Your task to perform on an android device: Add corsair k70 to the cart on walmart.com Image 0: 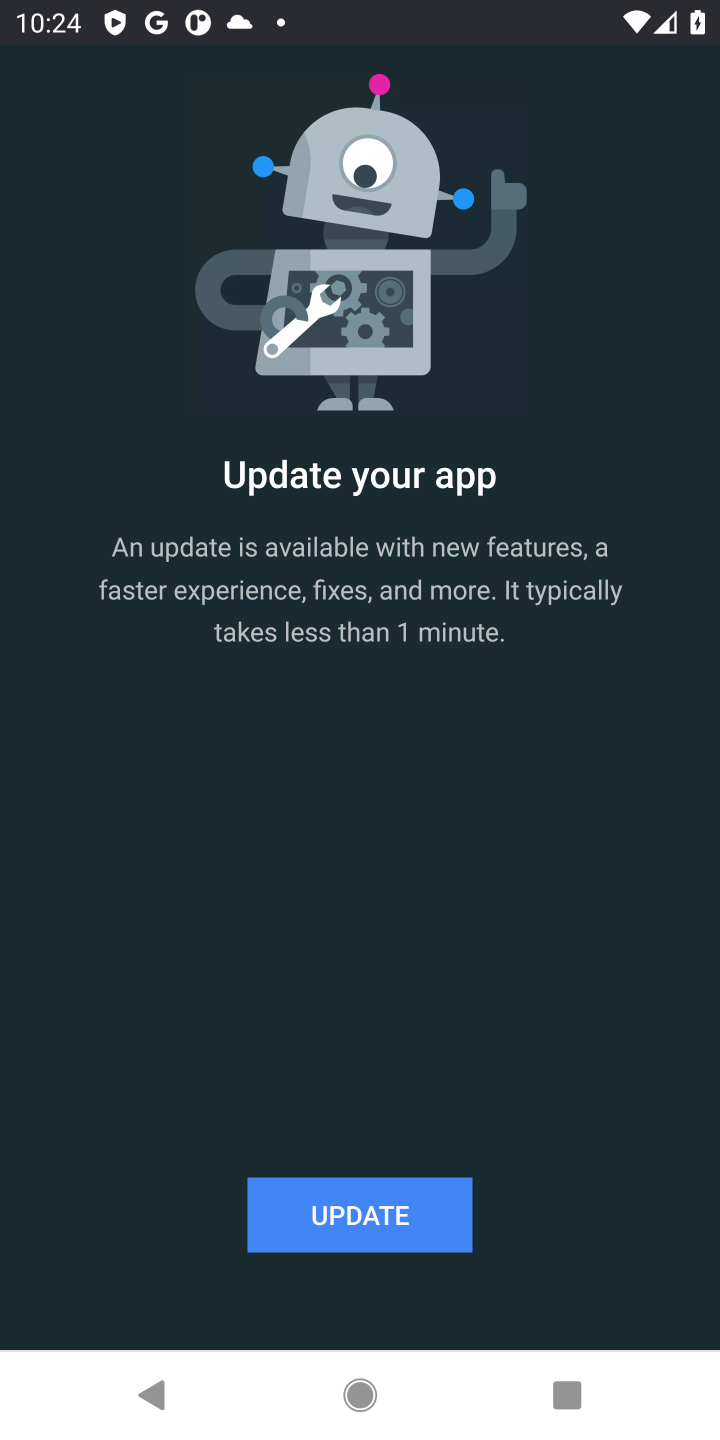
Step 0: press home button
Your task to perform on an android device: Add corsair k70 to the cart on walmart.com Image 1: 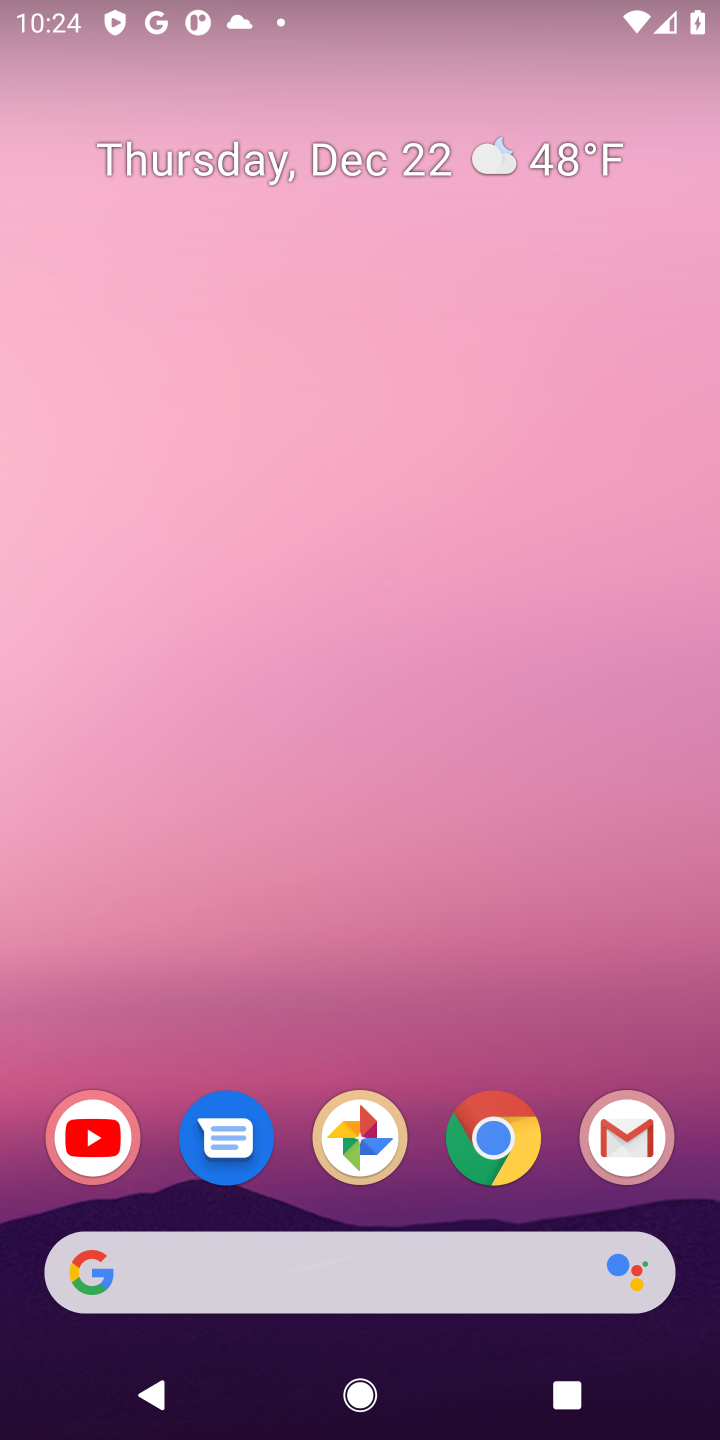
Step 1: click (491, 1128)
Your task to perform on an android device: Add corsair k70 to the cart on walmart.com Image 2: 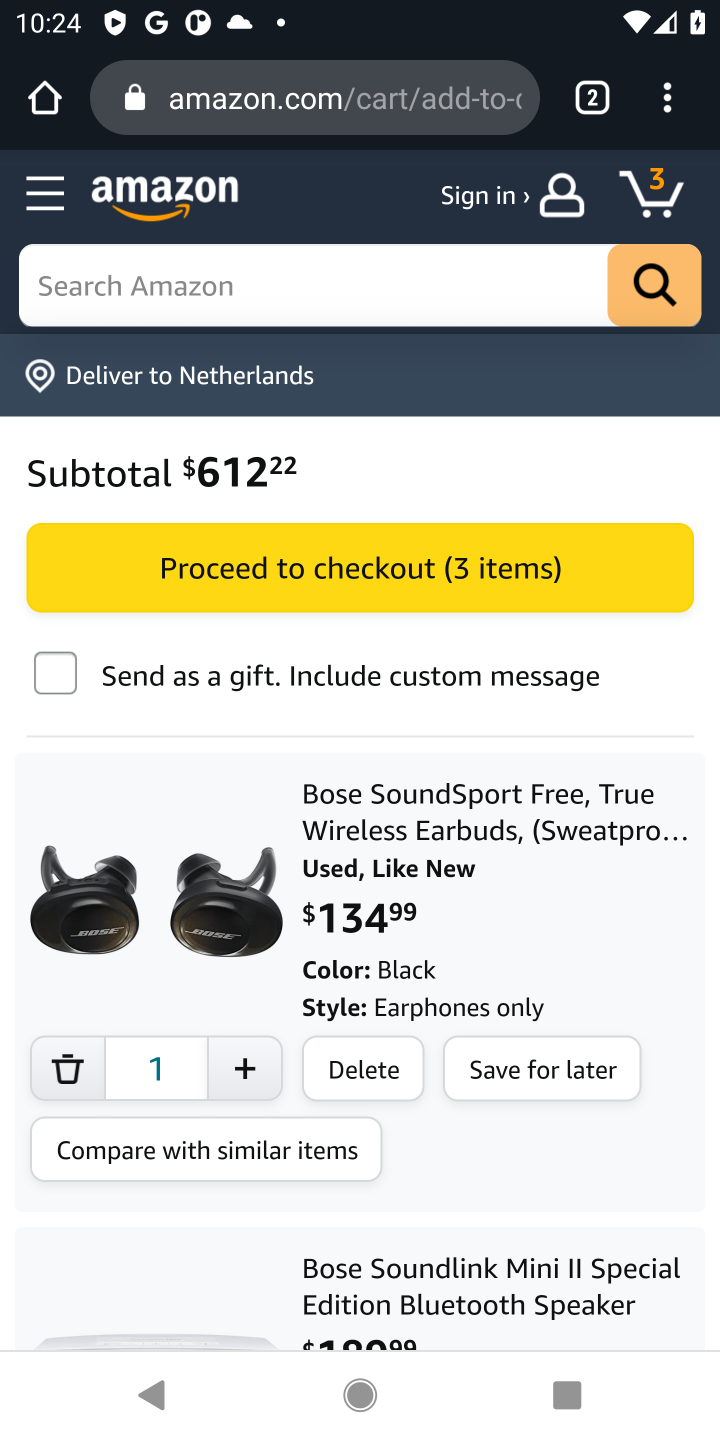
Step 2: click (371, 97)
Your task to perform on an android device: Add corsair k70 to the cart on walmart.com Image 3: 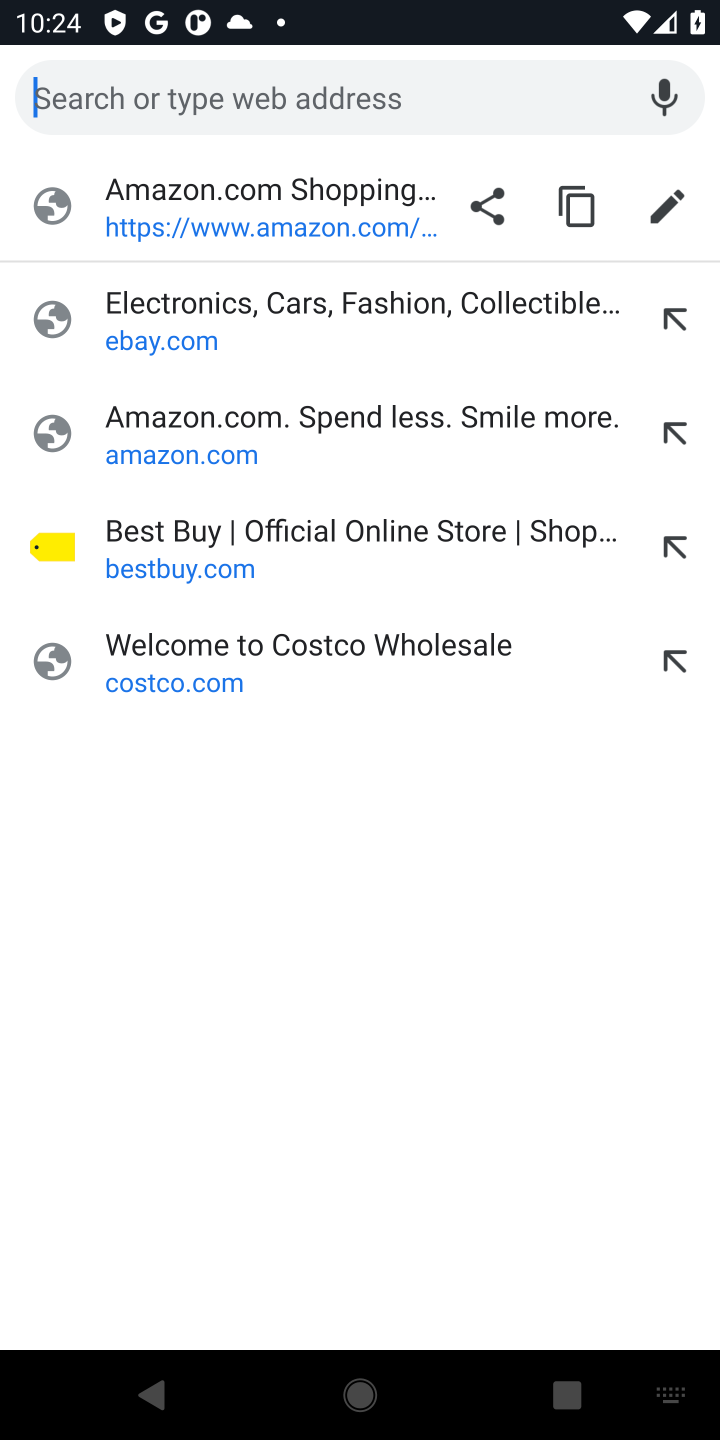
Step 3: type "walmart.com"
Your task to perform on an android device: Add corsair k70 to the cart on walmart.com Image 4: 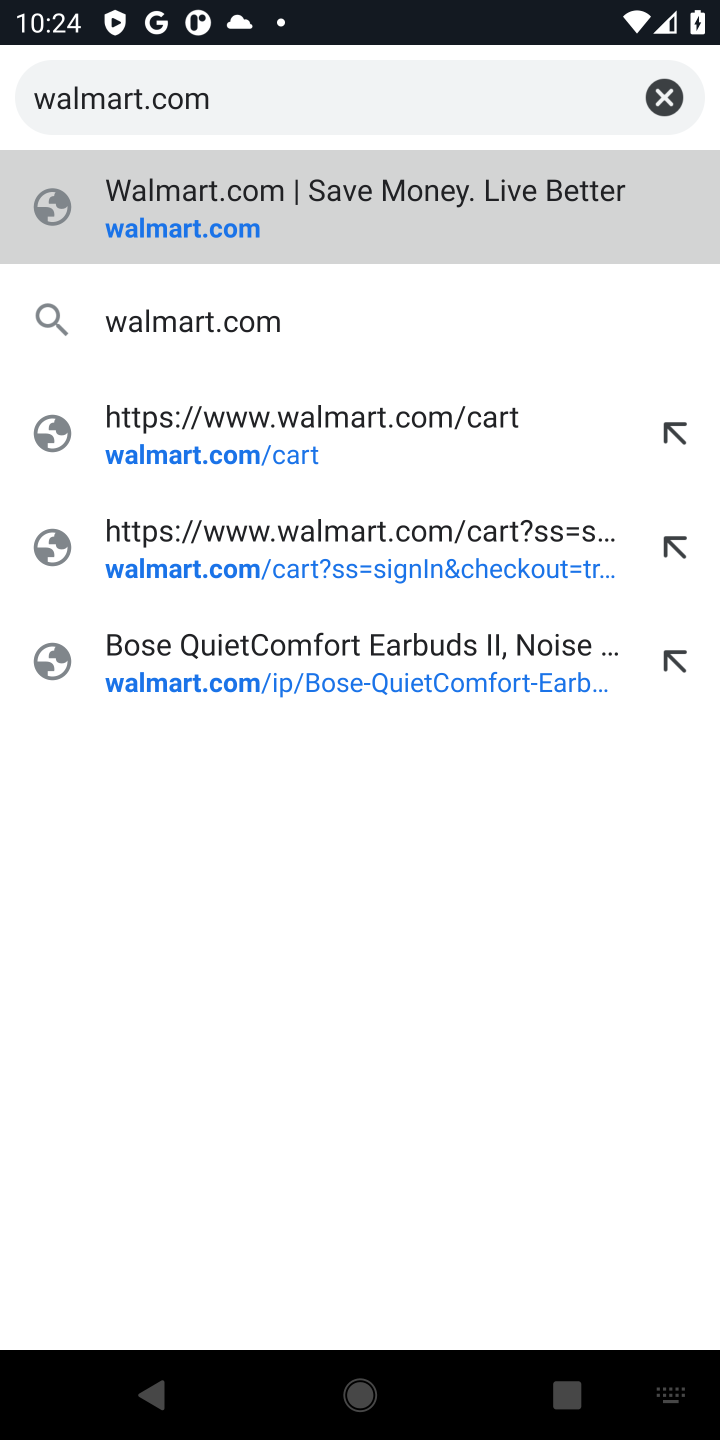
Step 4: press enter
Your task to perform on an android device: Add corsair k70 to the cart on walmart.com Image 5: 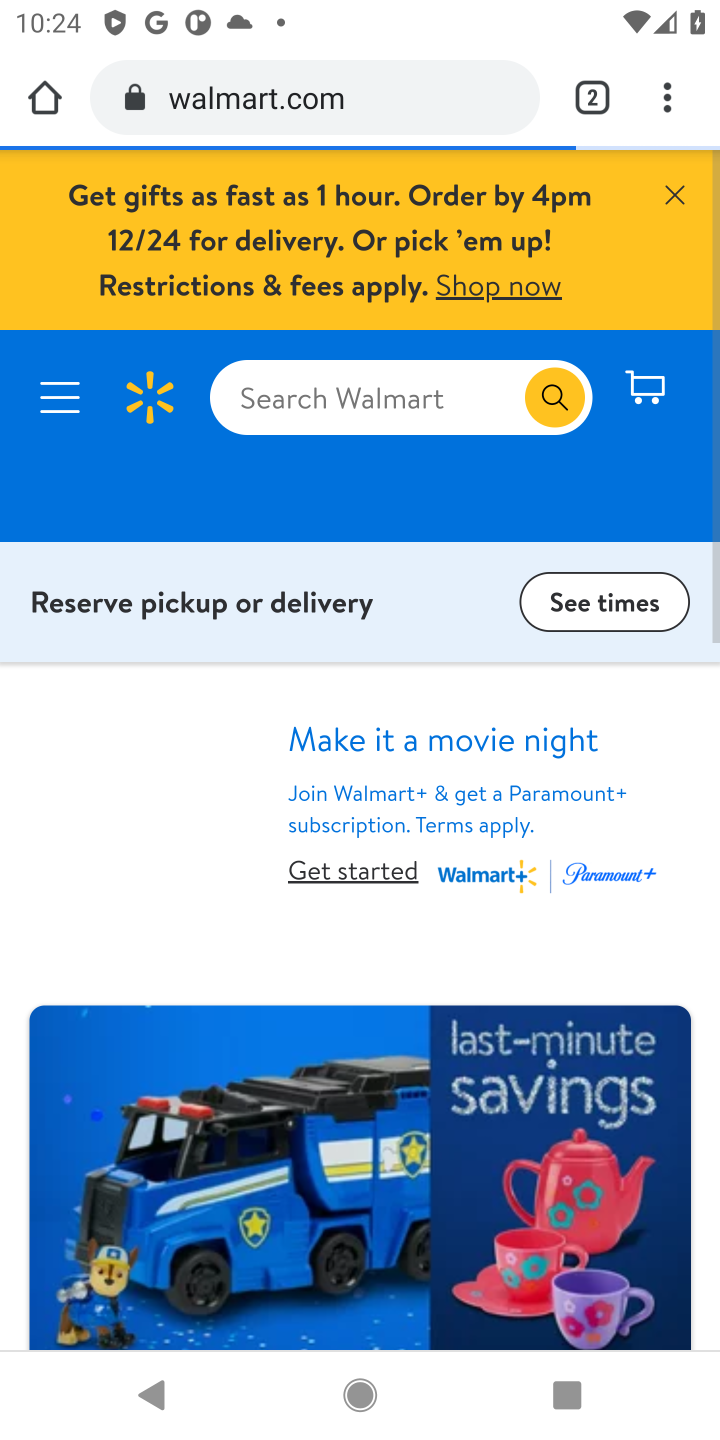
Step 5: click (661, 191)
Your task to perform on an android device: Add corsair k70 to the cart on walmart.com Image 6: 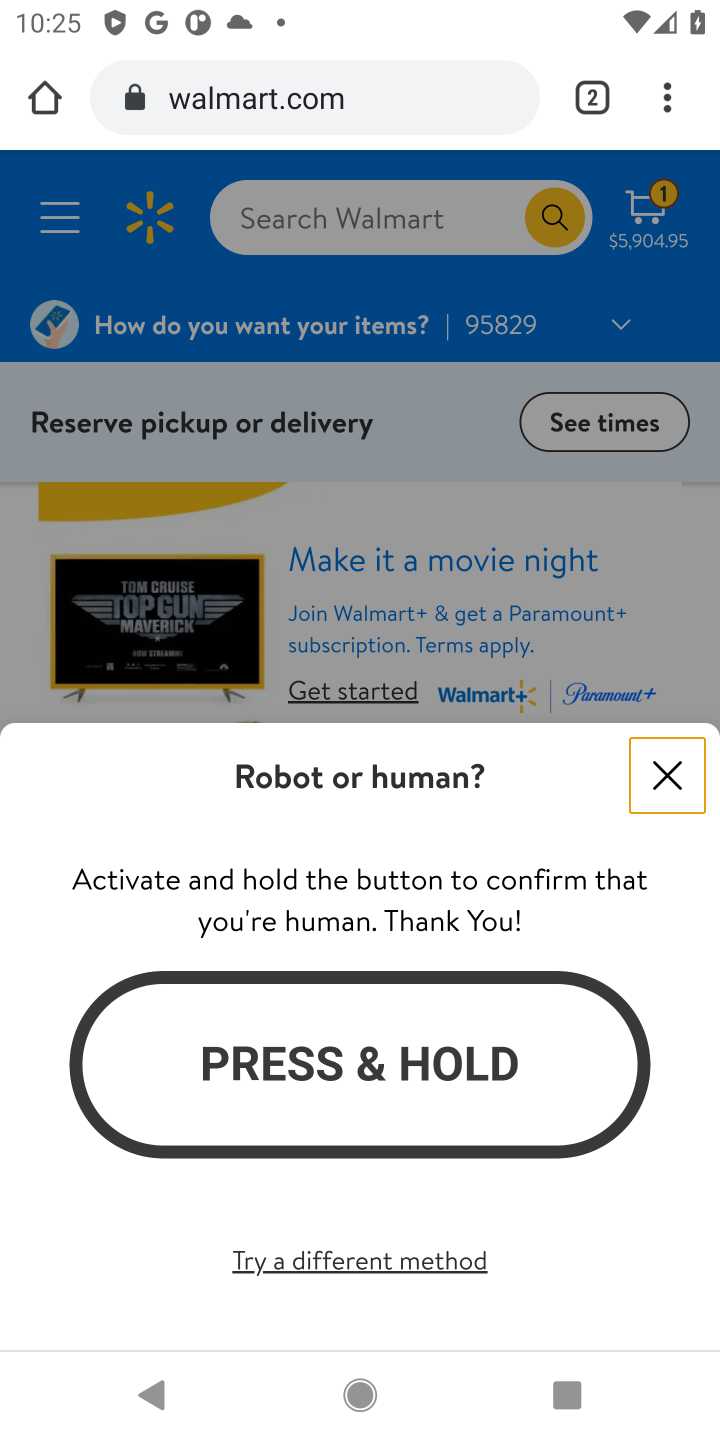
Step 6: click (671, 769)
Your task to perform on an android device: Add corsair k70 to the cart on walmart.com Image 7: 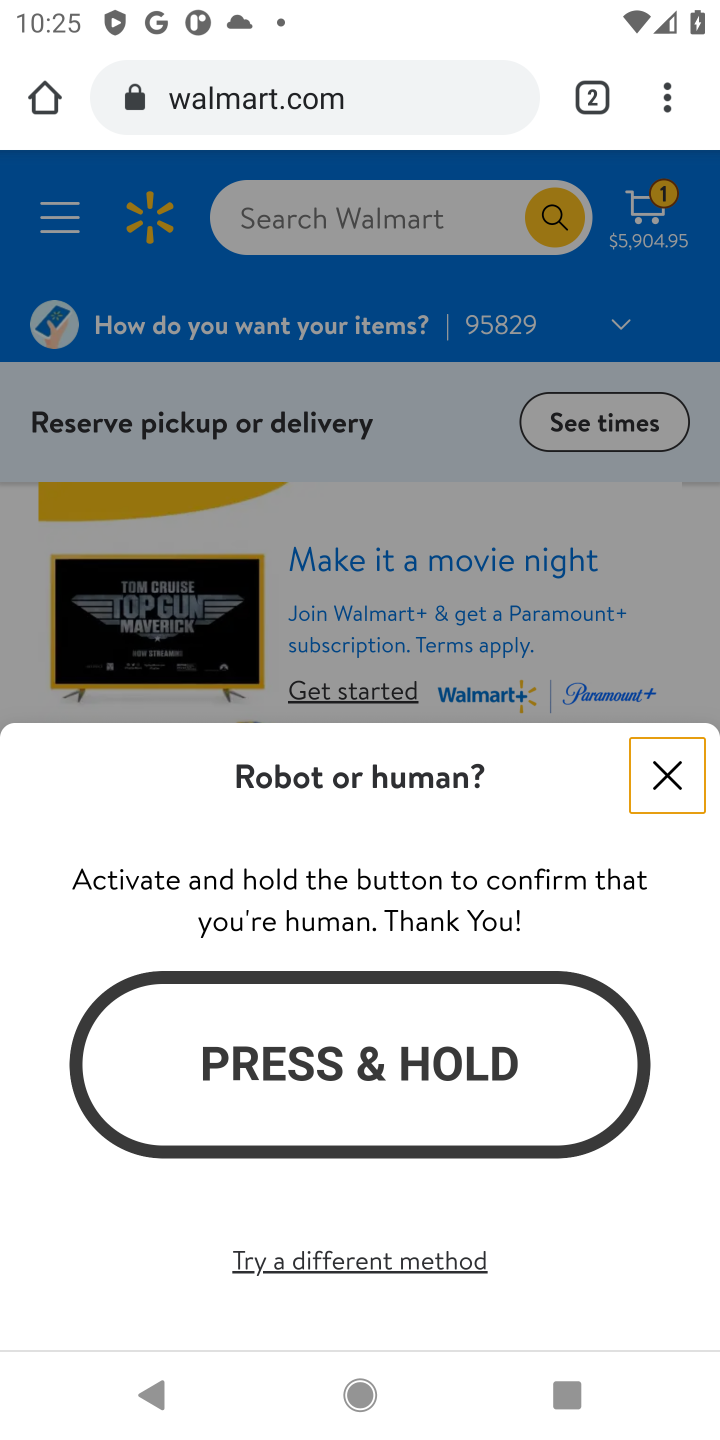
Step 7: click (673, 768)
Your task to perform on an android device: Add corsair k70 to the cart on walmart.com Image 8: 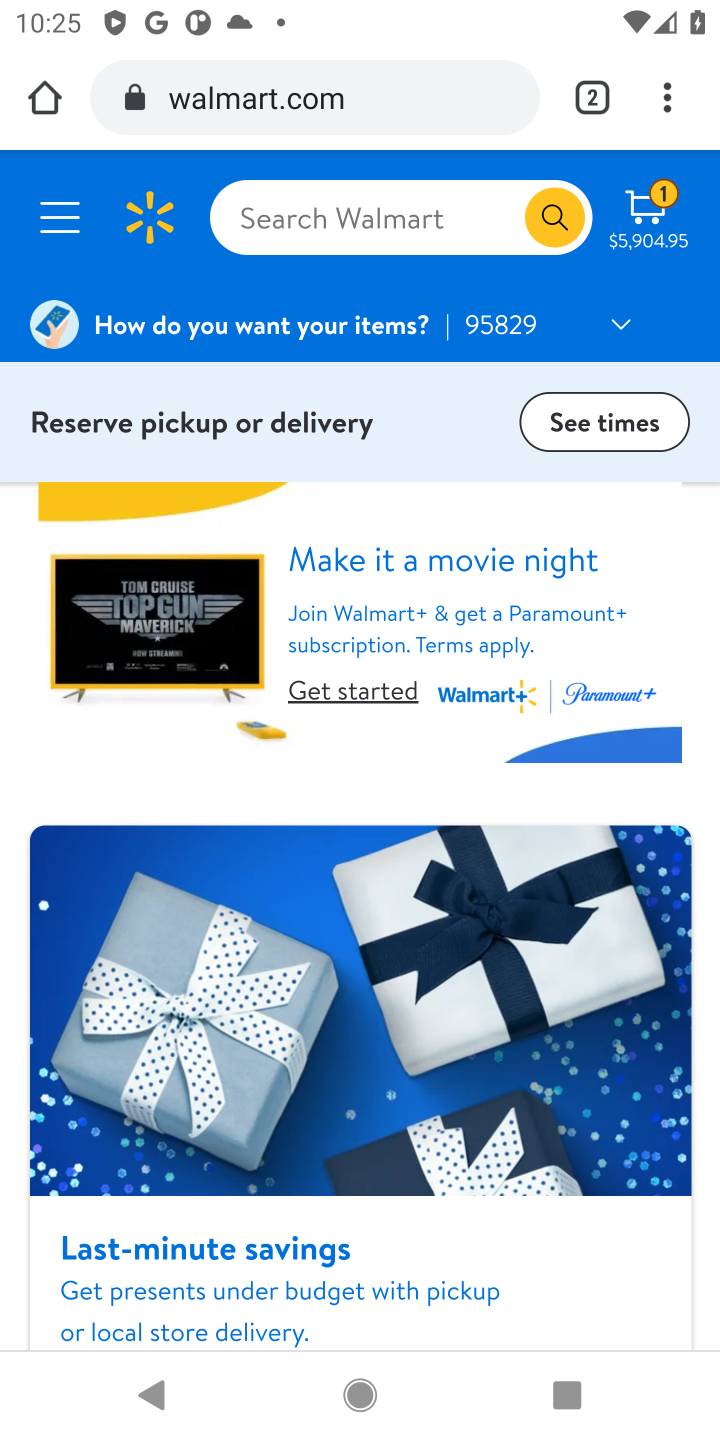
Step 8: click (420, 204)
Your task to perform on an android device: Add corsair k70 to the cart on walmart.com Image 9: 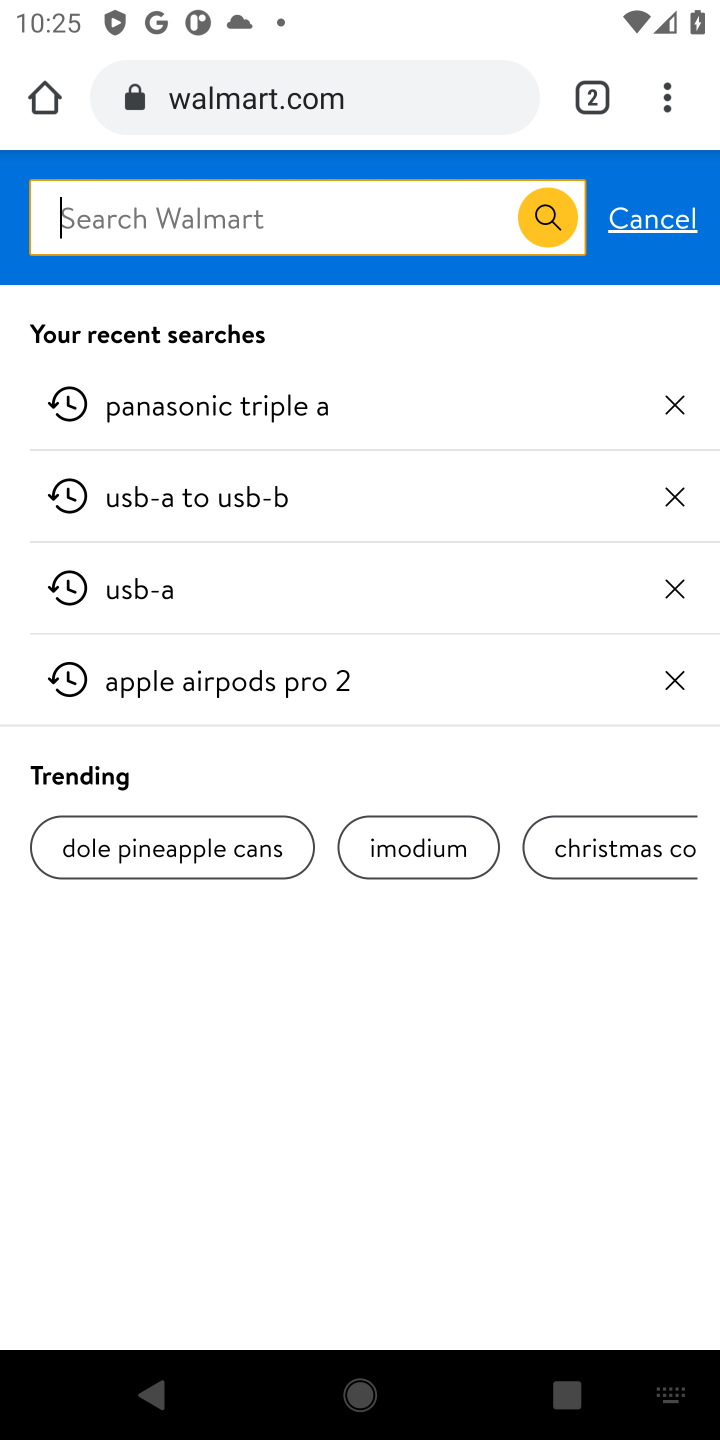
Step 9: type "corsair k70"
Your task to perform on an android device: Add corsair k70 to the cart on walmart.com Image 10: 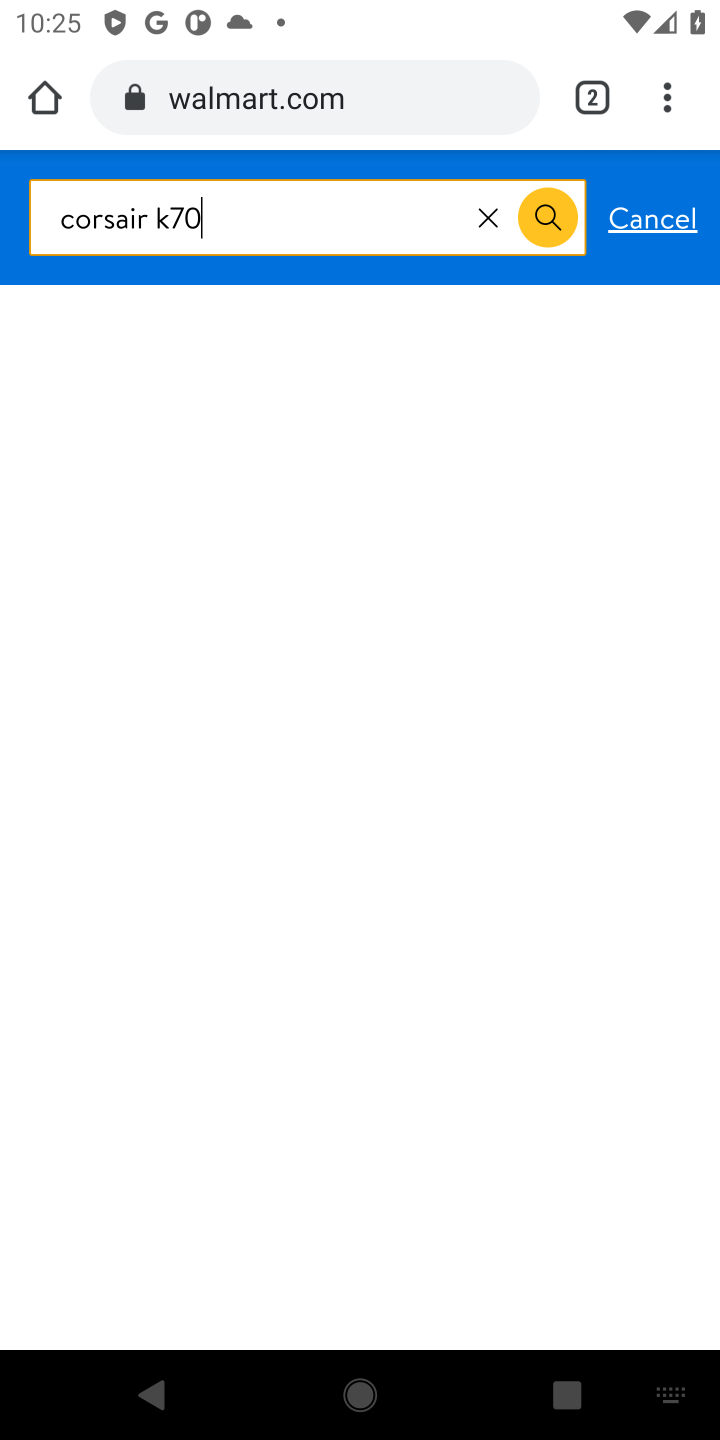
Step 10: press enter
Your task to perform on an android device: Add corsair k70 to the cart on walmart.com Image 11: 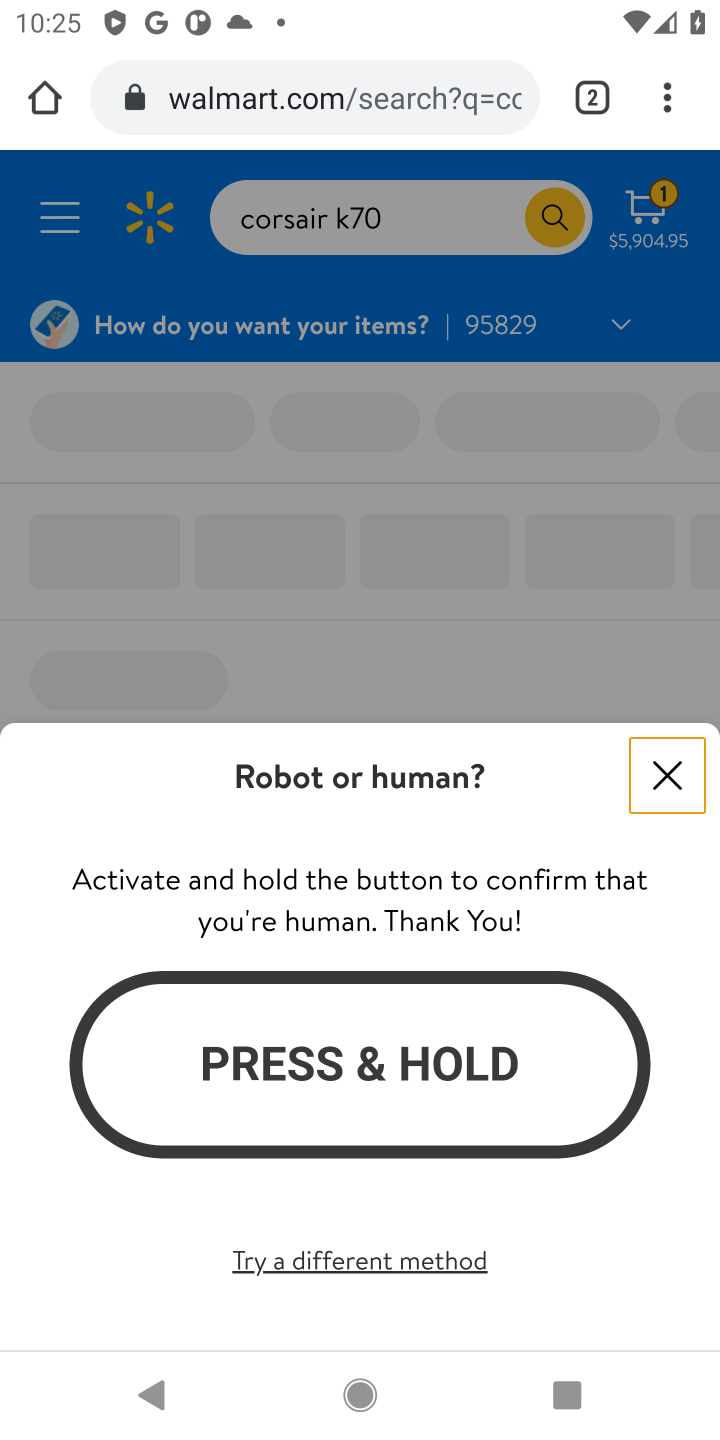
Step 11: click (687, 787)
Your task to perform on an android device: Add corsair k70 to the cart on walmart.com Image 12: 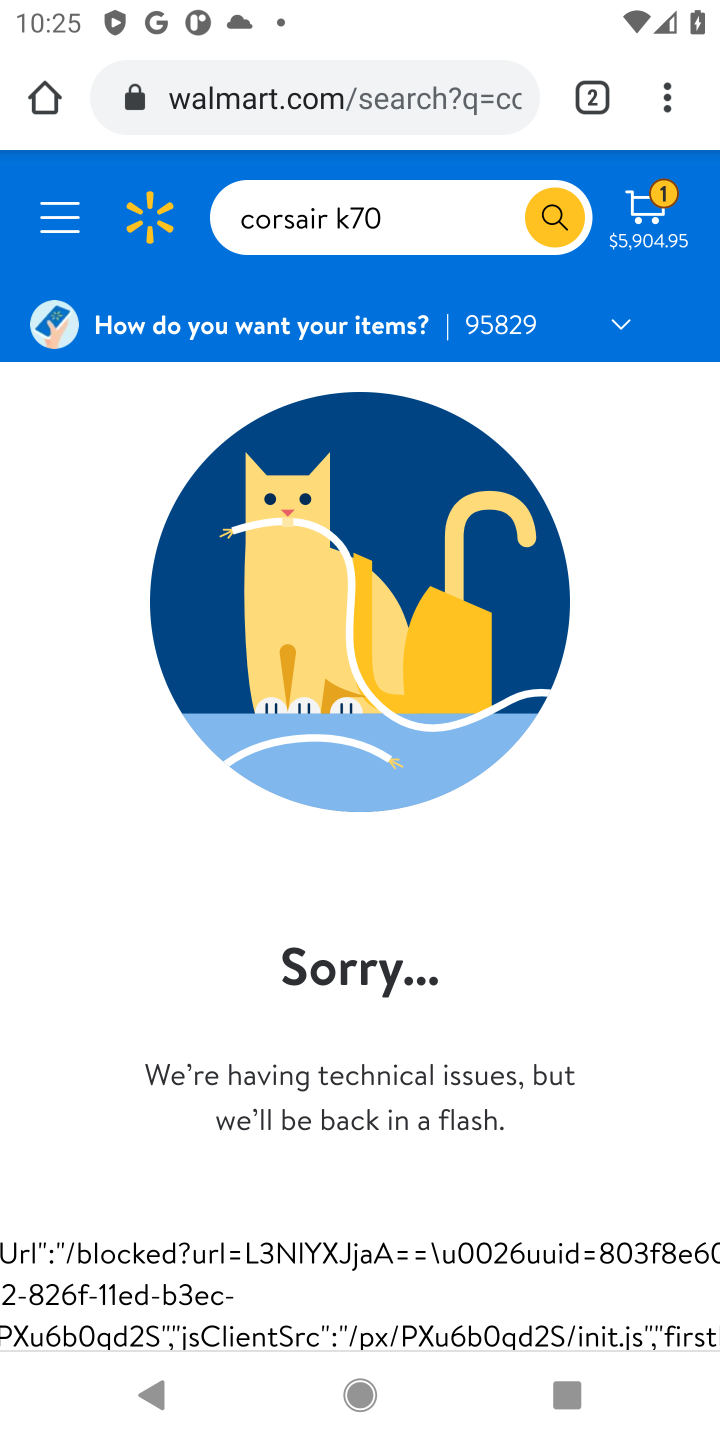
Step 12: click (557, 225)
Your task to perform on an android device: Add corsair k70 to the cart on walmart.com Image 13: 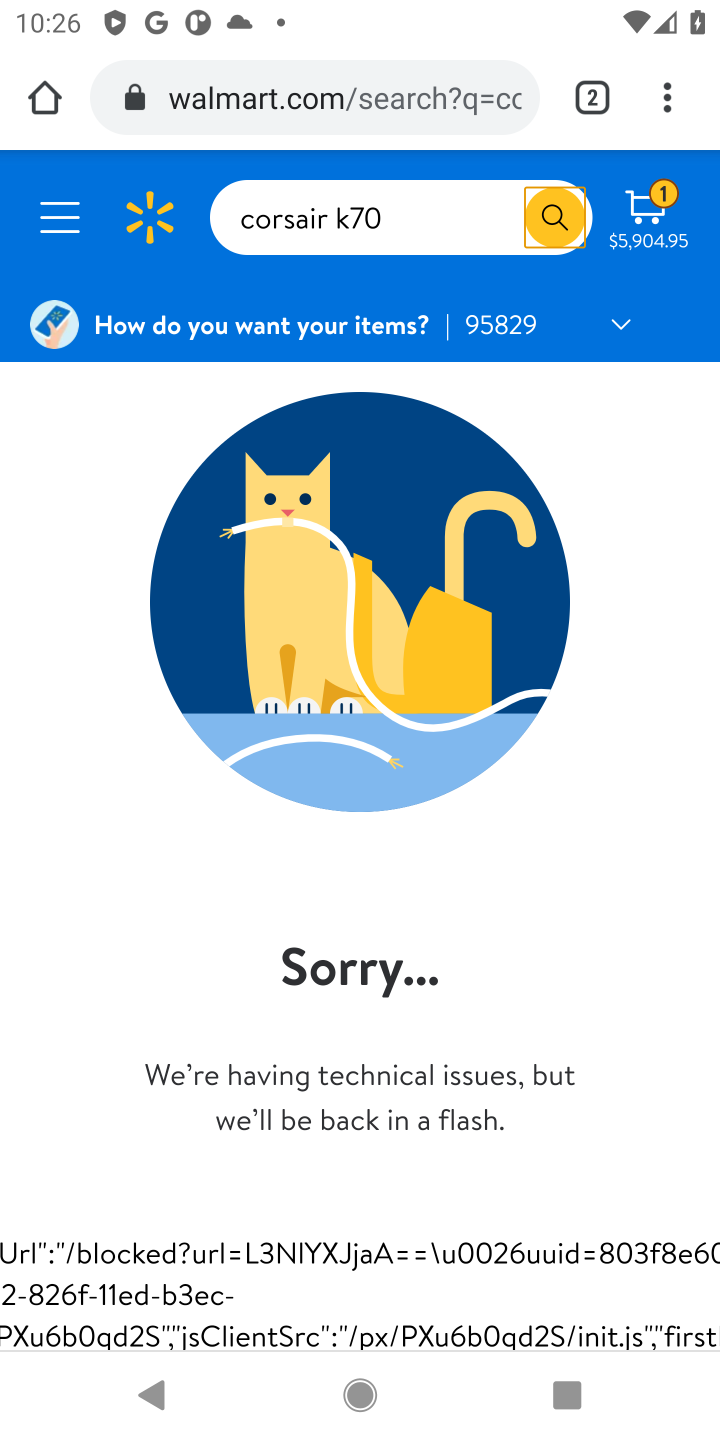
Step 13: click (557, 225)
Your task to perform on an android device: Add corsair k70 to the cart on walmart.com Image 14: 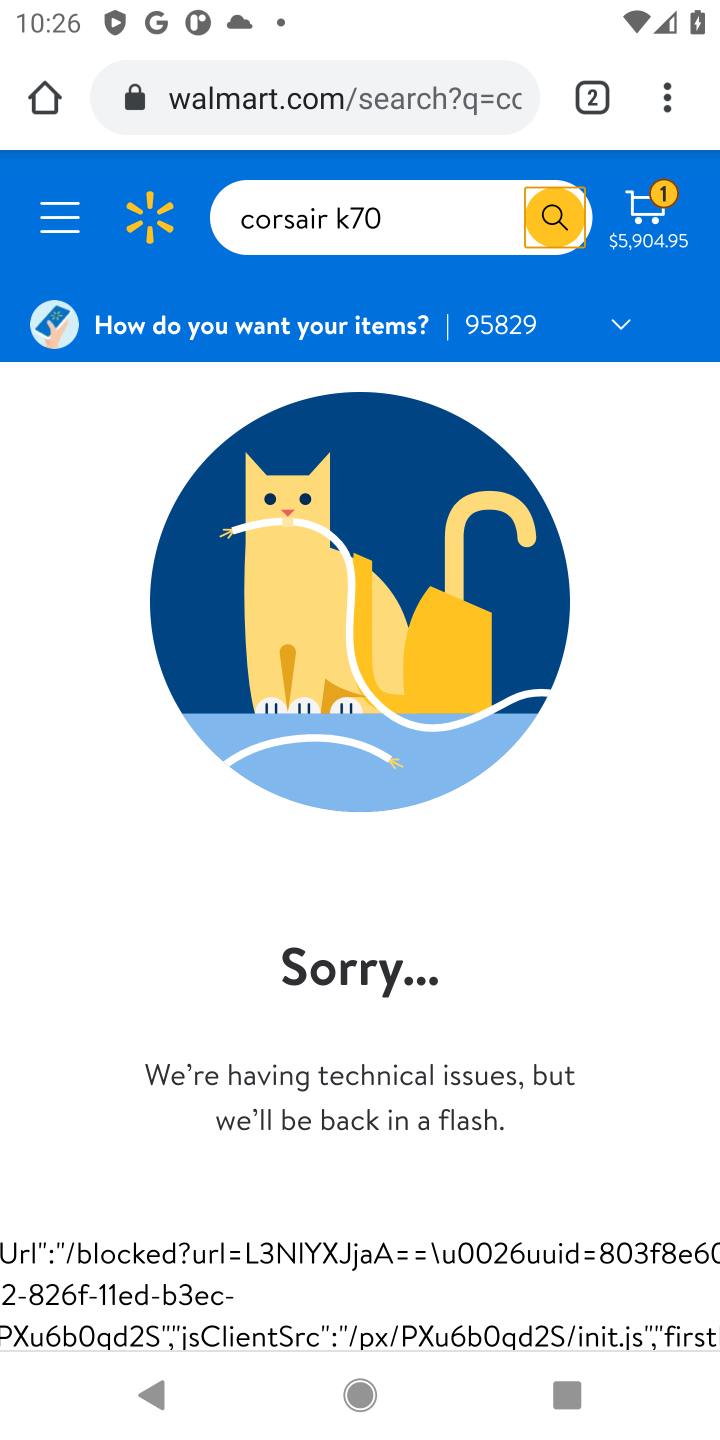
Step 14: task complete